Your task to perform on an android device: Open Chrome and go to the settings page Image 0: 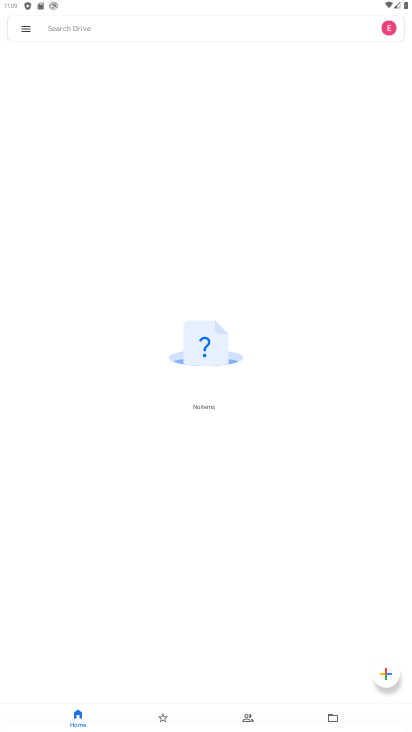
Step 0: press home button
Your task to perform on an android device: Open Chrome and go to the settings page Image 1: 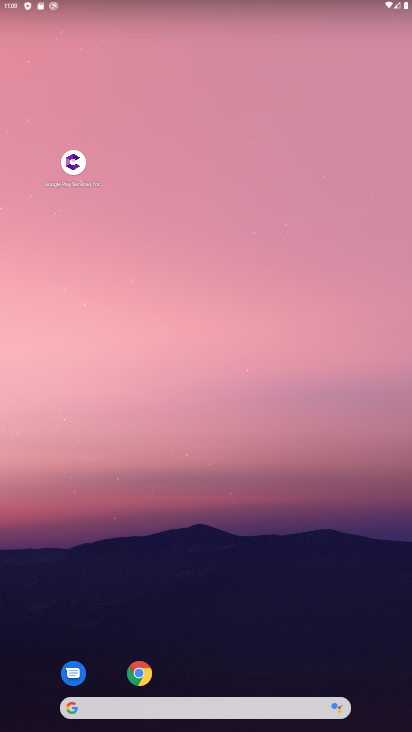
Step 1: click (143, 678)
Your task to perform on an android device: Open Chrome and go to the settings page Image 2: 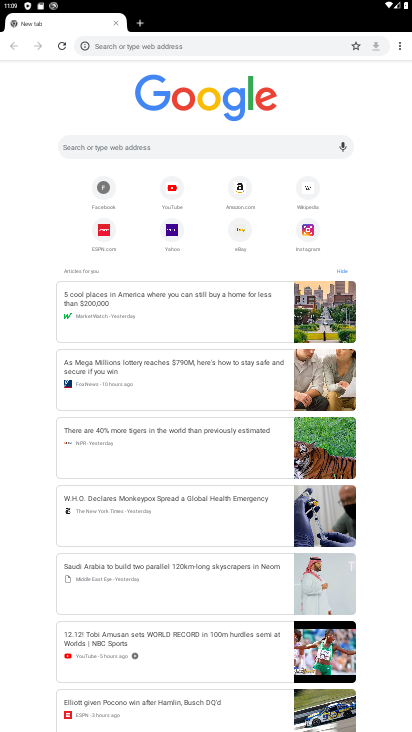
Step 2: click (395, 43)
Your task to perform on an android device: Open Chrome and go to the settings page Image 3: 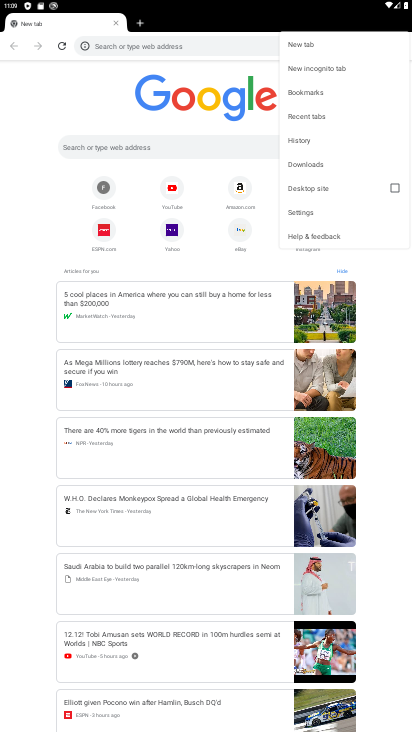
Step 3: click (310, 210)
Your task to perform on an android device: Open Chrome and go to the settings page Image 4: 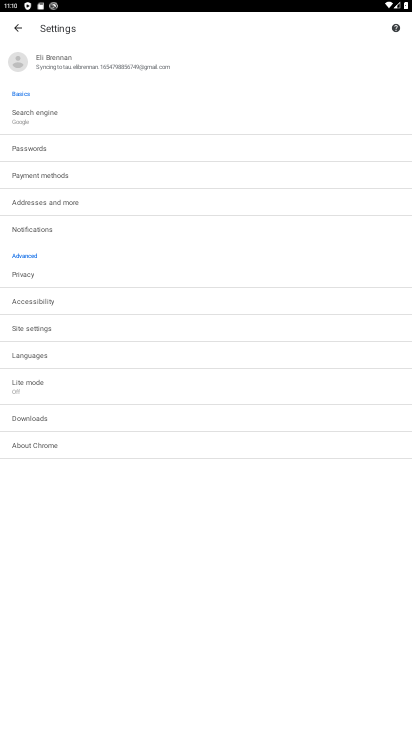
Step 4: task complete